Your task to perform on an android device: Open the stopwatch Image 0: 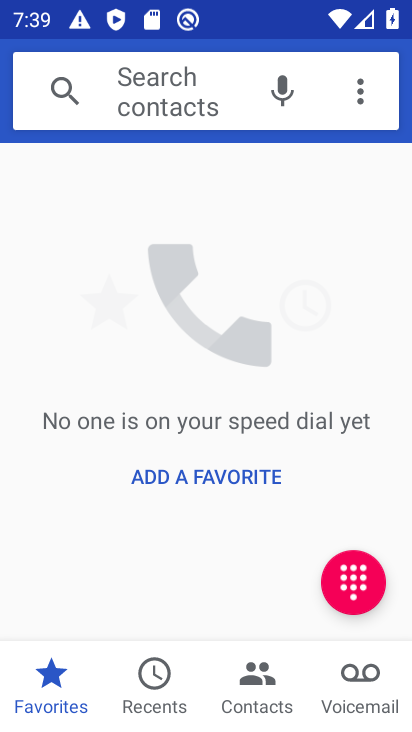
Step 0: press home button
Your task to perform on an android device: Open the stopwatch Image 1: 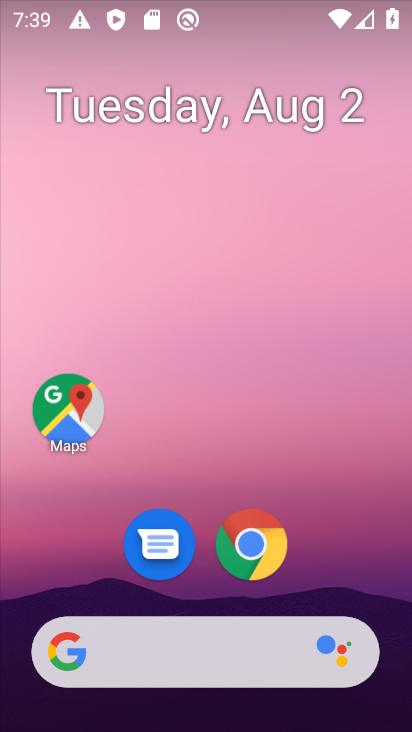
Step 1: drag from (210, 560) to (150, 231)
Your task to perform on an android device: Open the stopwatch Image 2: 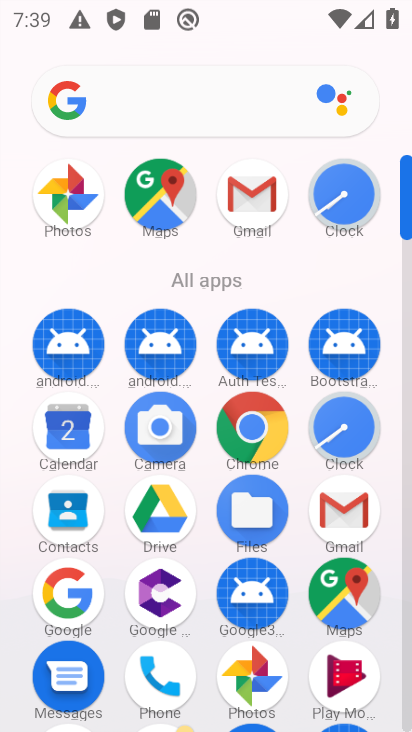
Step 2: click (354, 194)
Your task to perform on an android device: Open the stopwatch Image 3: 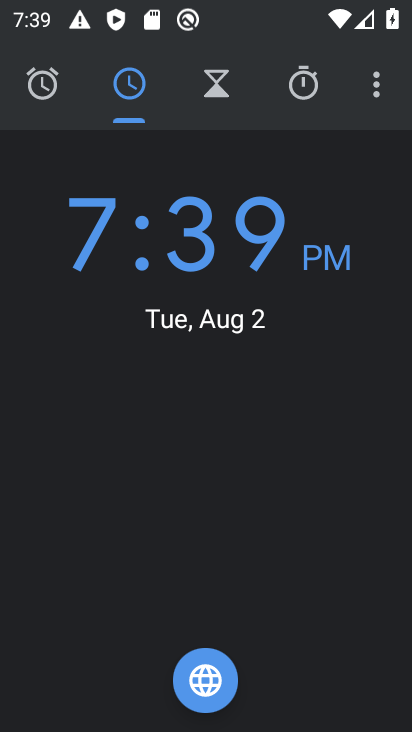
Step 3: click (292, 89)
Your task to perform on an android device: Open the stopwatch Image 4: 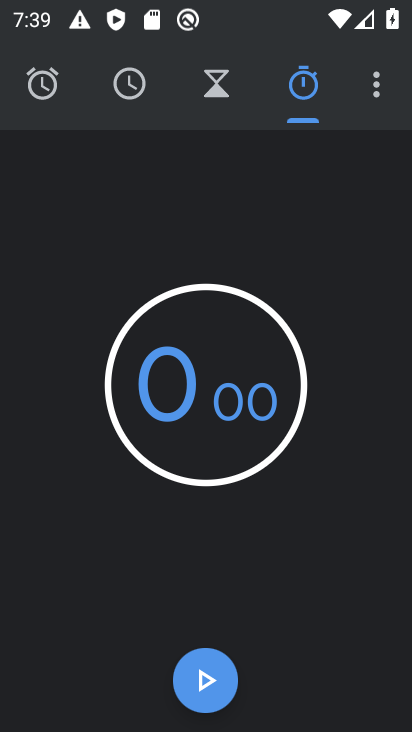
Step 4: task complete